Your task to perform on an android device: Go to eBay Image 0: 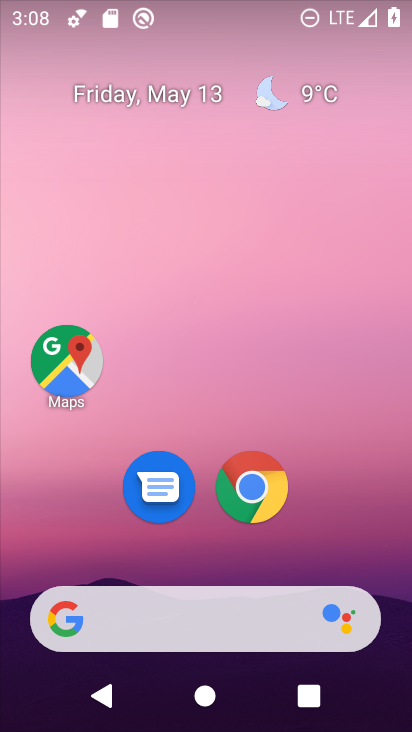
Step 0: click (218, 485)
Your task to perform on an android device: Go to eBay Image 1: 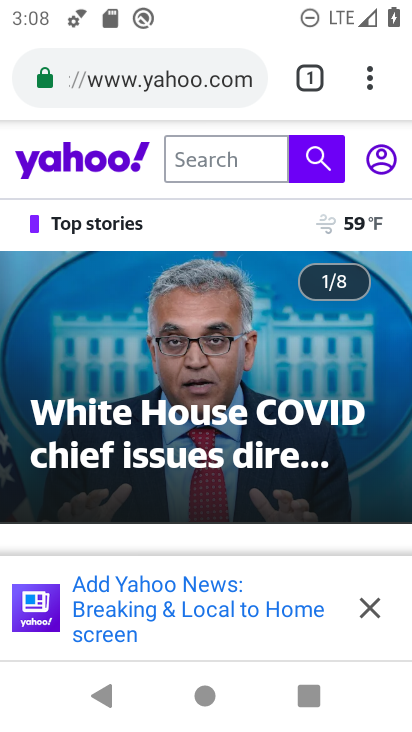
Step 1: click (374, 611)
Your task to perform on an android device: Go to eBay Image 2: 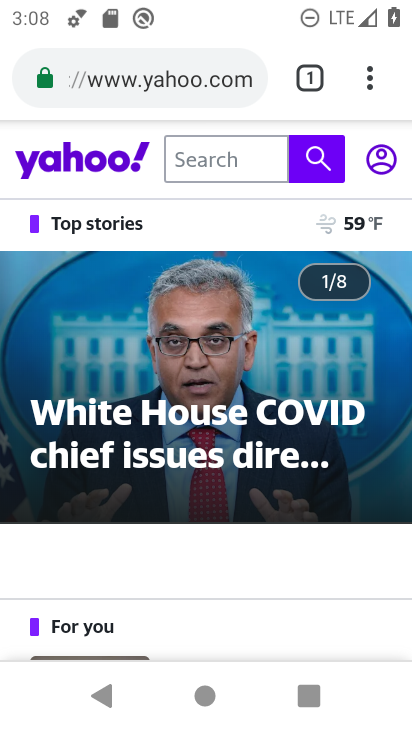
Step 2: click (138, 74)
Your task to perform on an android device: Go to eBay Image 3: 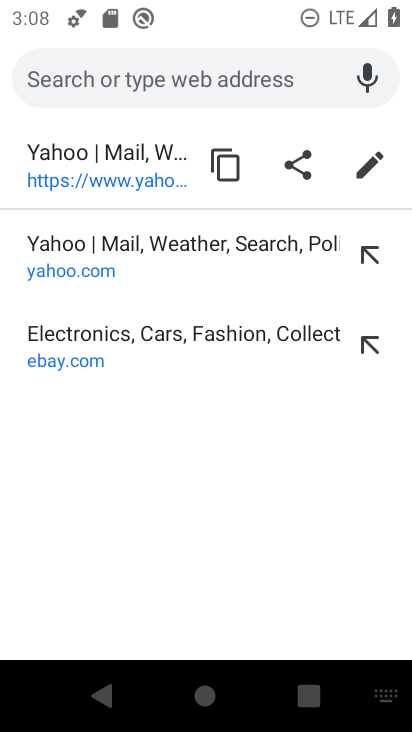
Step 3: type "ebay.com"
Your task to perform on an android device: Go to eBay Image 4: 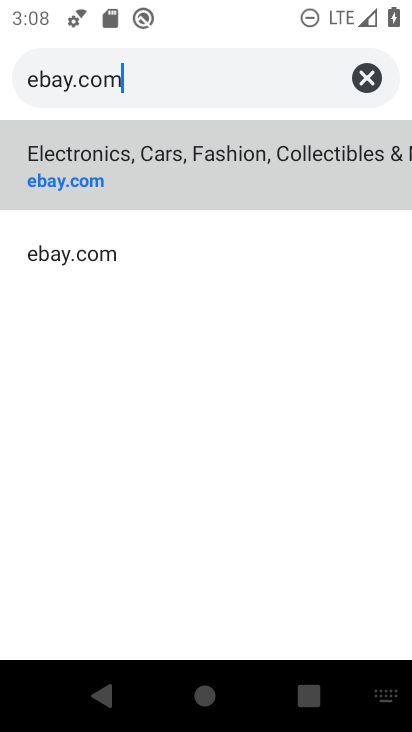
Step 4: click (143, 173)
Your task to perform on an android device: Go to eBay Image 5: 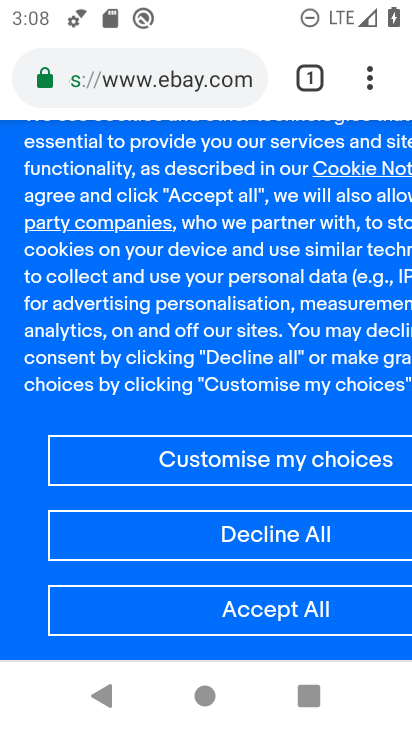
Step 5: task complete